Your task to perform on an android device: turn on airplane mode Image 0: 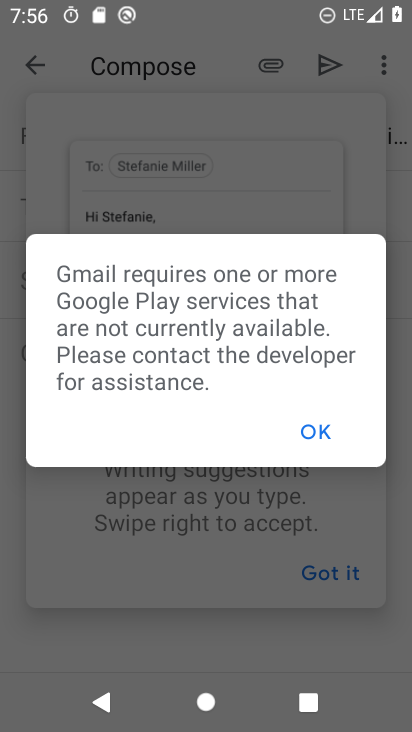
Step 0: press home button
Your task to perform on an android device: turn on airplane mode Image 1: 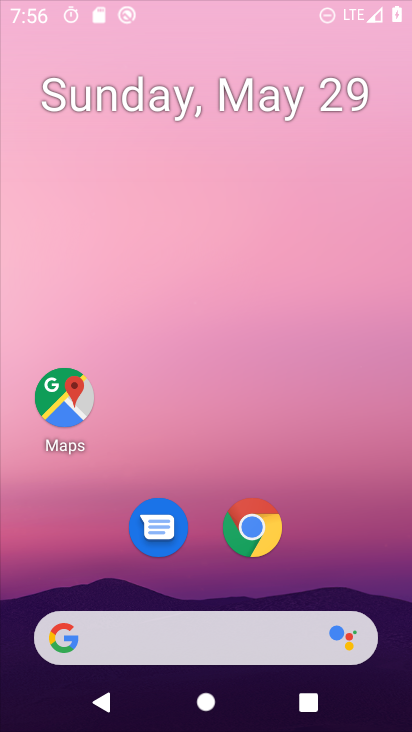
Step 1: drag from (370, 645) to (378, 6)
Your task to perform on an android device: turn on airplane mode Image 2: 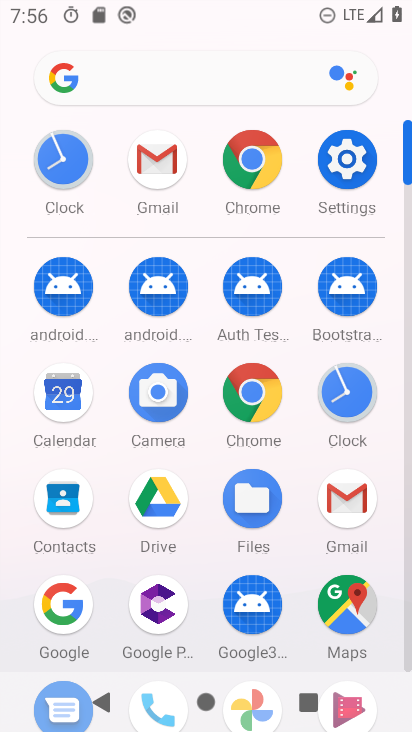
Step 2: drag from (284, 0) to (289, 539)
Your task to perform on an android device: turn on airplane mode Image 3: 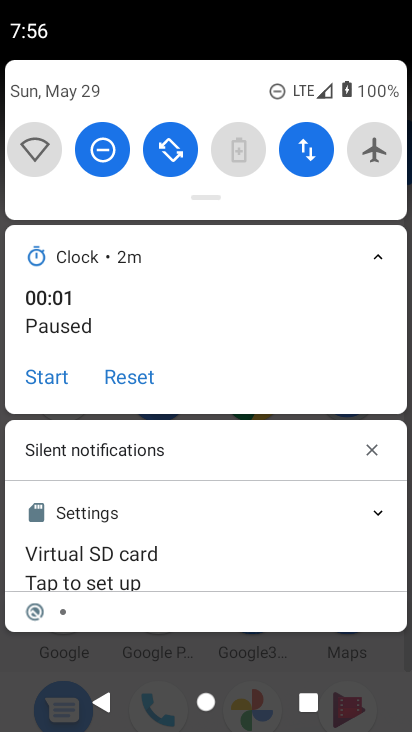
Step 3: click (385, 152)
Your task to perform on an android device: turn on airplane mode Image 4: 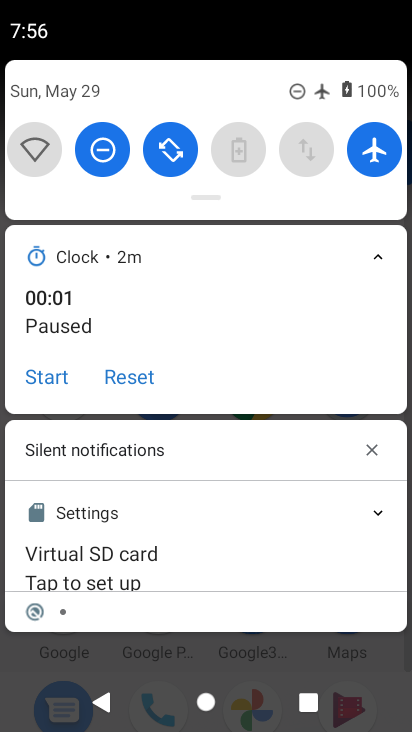
Step 4: task complete